Your task to perform on an android device: turn vacation reply on in the gmail app Image 0: 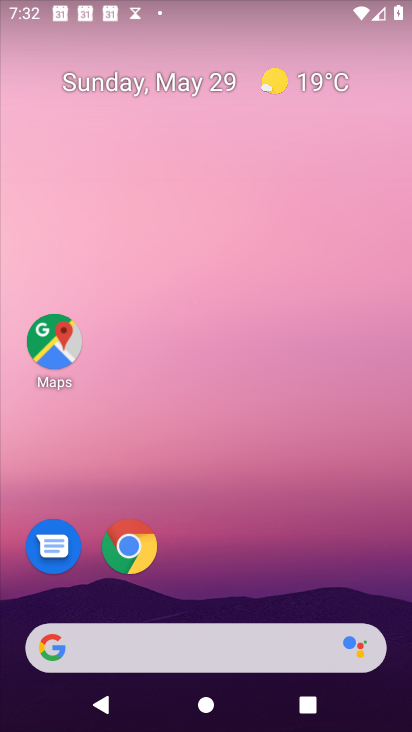
Step 0: drag from (259, 570) to (206, 59)
Your task to perform on an android device: turn vacation reply on in the gmail app Image 1: 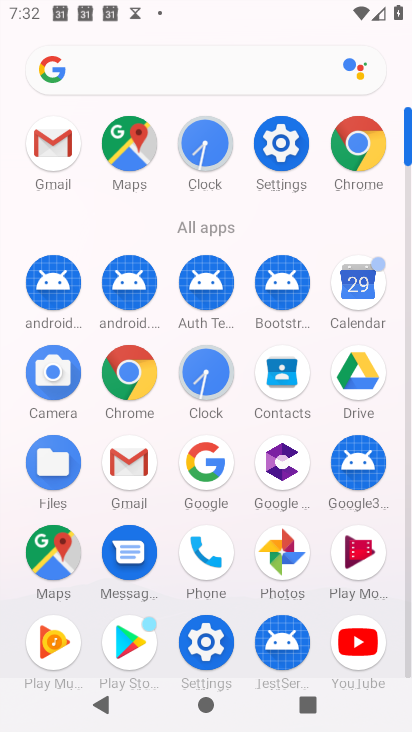
Step 1: click (58, 143)
Your task to perform on an android device: turn vacation reply on in the gmail app Image 2: 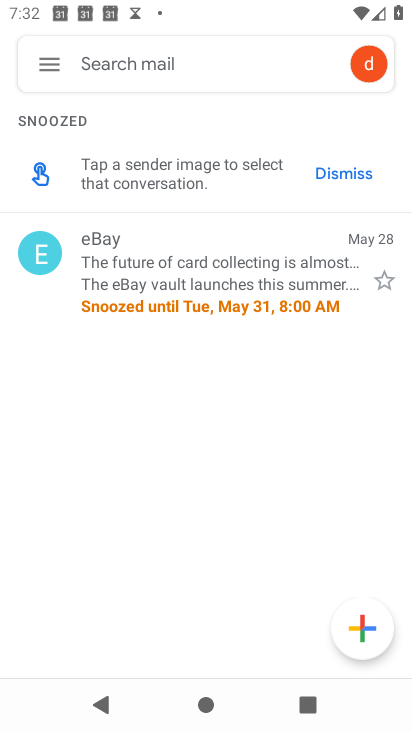
Step 2: click (42, 65)
Your task to perform on an android device: turn vacation reply on in the gmail app Image 3: 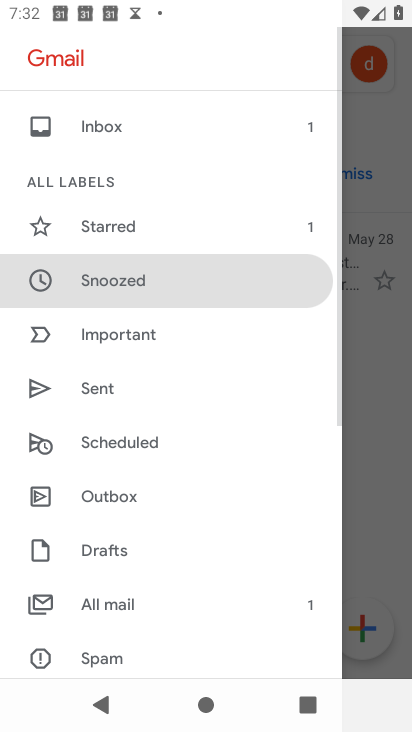
Step 3: drag from (117, 576) to (108, 153)
Your task to perform on an android device: turn vacation reply on in the gmail app Image 4: 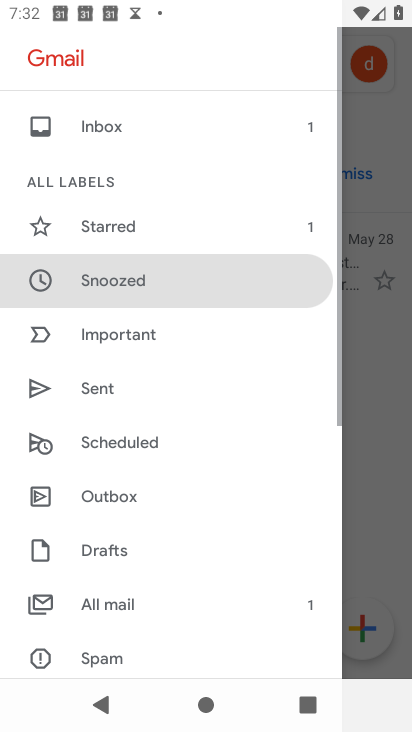
Step 4: drag from (163, 600) to (200, 193)
Your task to perform on an android device: turn vacation reply on in the gmail app Image 5: 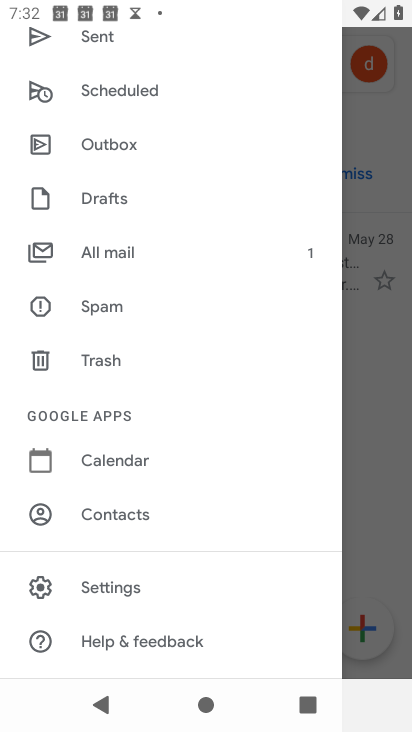
Step 5: click (133, 590)
Your task to perform on an android device: turn vacation reply on in the gmail app Image 6: 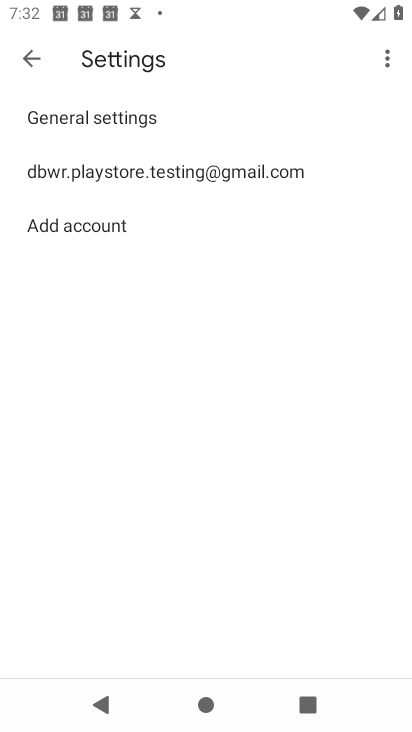
Step 6: click (182, 168)
Your task to perform on an android device: turn vacation reply on in the gmail app Image 7: 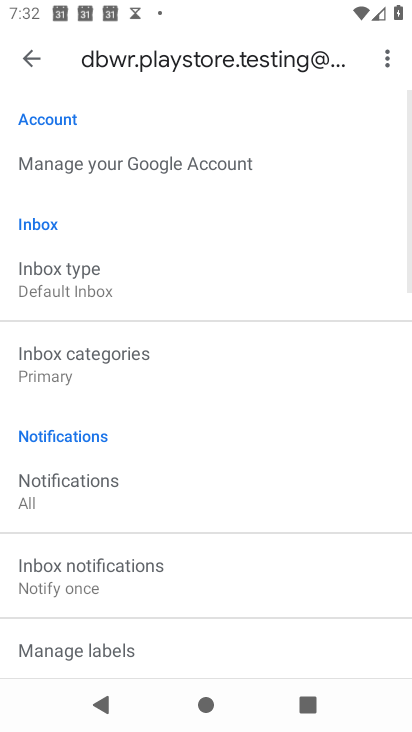
Step 7: drag from (140, 603) to (214, 151)
Your task to perform on an android device: turn vacation reply on in the gmail app Image 8: 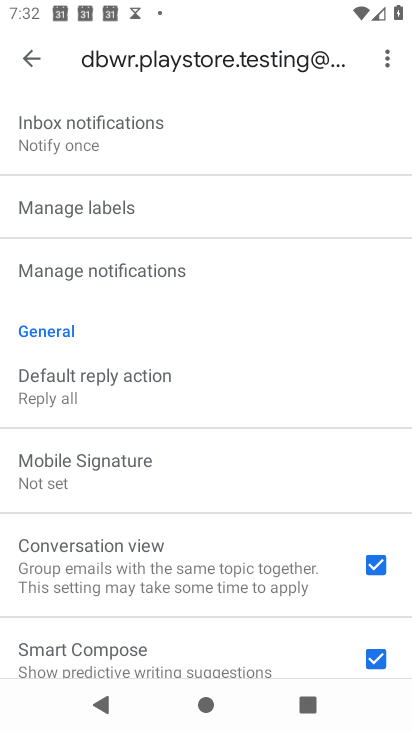
Step 8: drag from (168, 612) to (218, 111)
Your task to perform on an android device: turn vacation reply on in the gmail app Image 9: 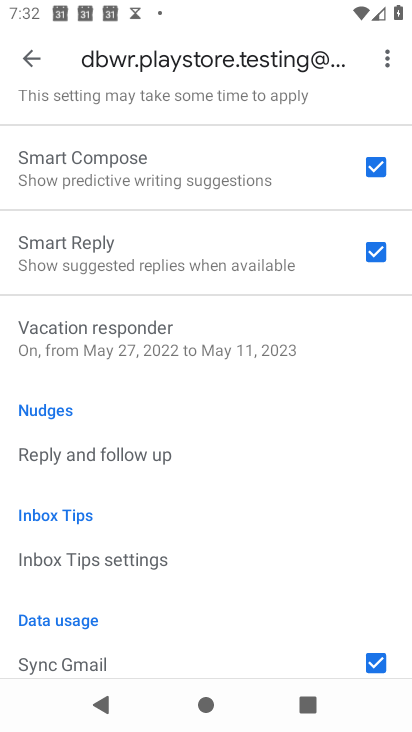
Step 9: click (216, 362)
Your task to perform on an android device: turn vacation reply on in the gmail app Image 10: 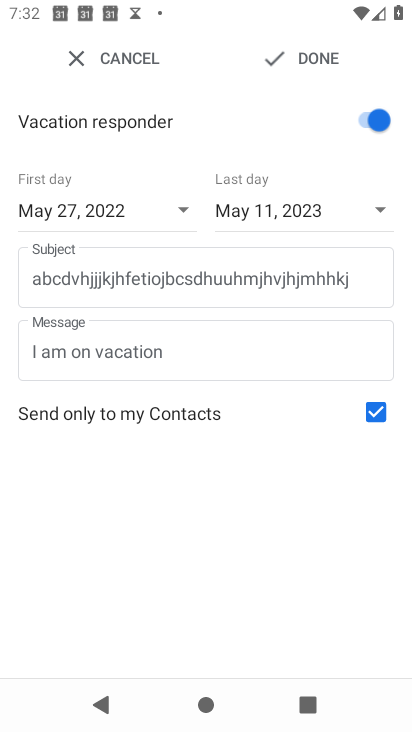
Step 10: task complete